Your task to perform on an android device: delete the emails in spam in the gmail app Image 0: 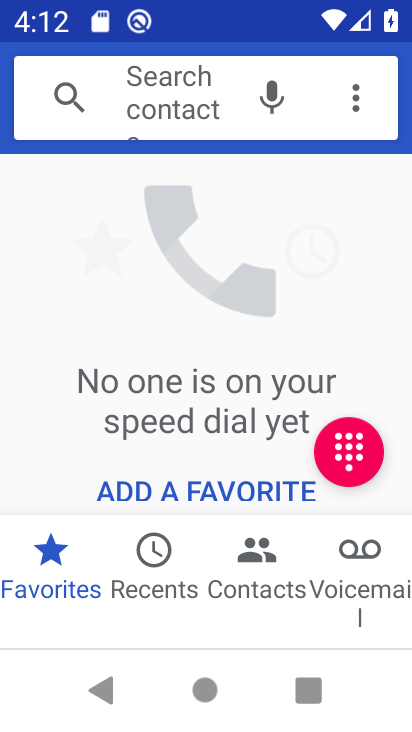
Step 0: press home button
Your task to perform on an android device: delete the emails in spam in the gmail app Image 1: 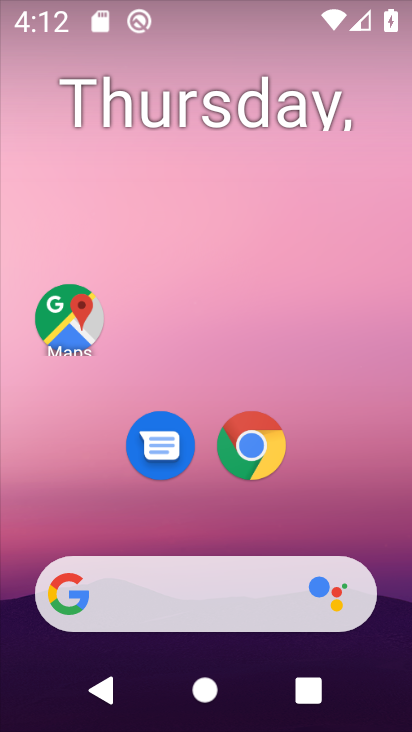
Step 1: drag from (317, 504) to (298, 134)
Your task to perform on an android device: delete the emails in spam in the gmail app Image 2: 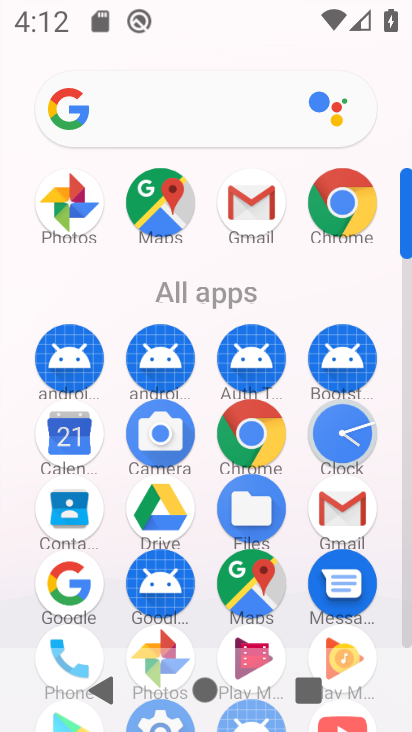
Step 2: click (349, 512)
Your task to perform on an android device: delete the emails in spam in the gmail app Image 3: 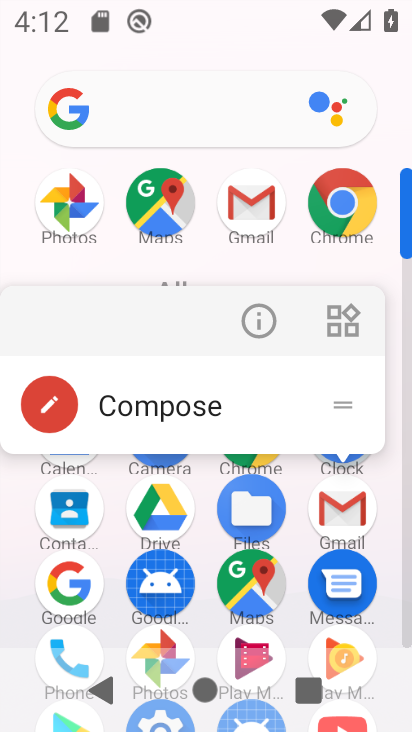
Step 3: click (344, 502)
Your task to perform on an android device: delete the emails in spam in the gmail app Image 4: 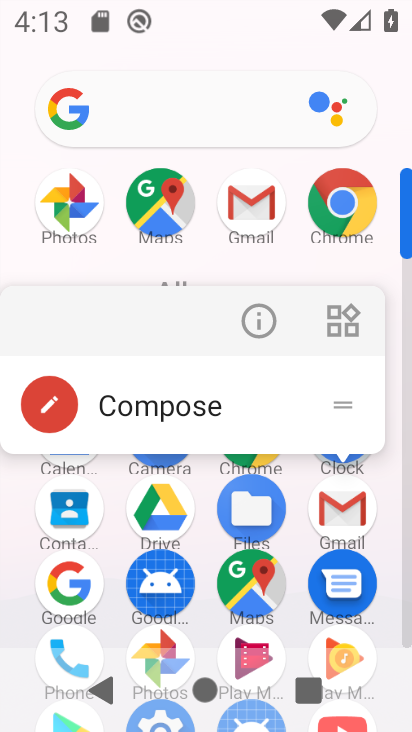
Step 4: click (337, 508)
Your task to perform on an android device: delete the emails in spam in the gmail app Image 5: 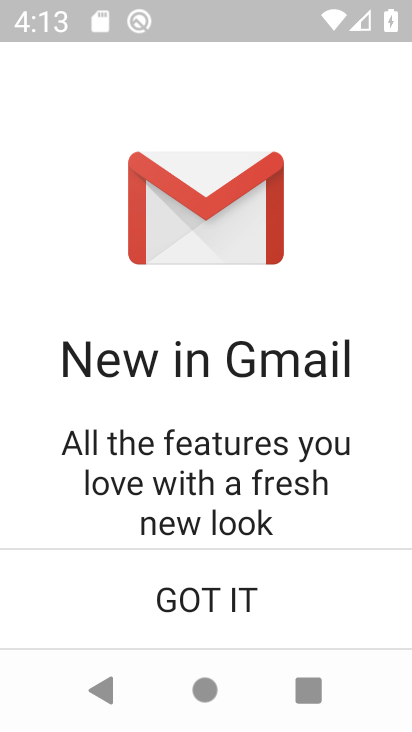
Step 5: click (227, 609)
Your task to perform on an android device: delete the emails in spam in the gmail app Image 6: 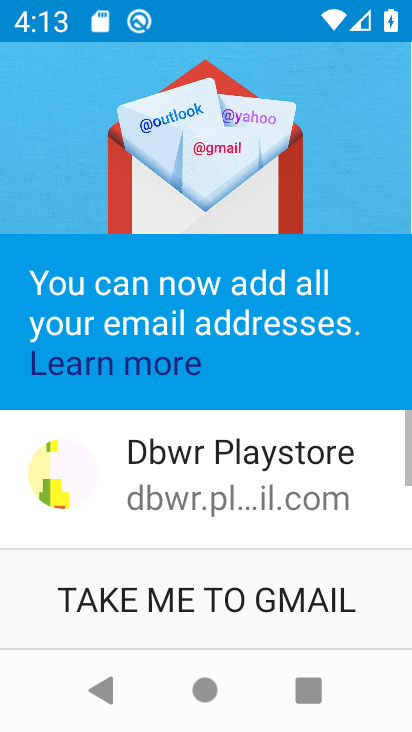
Step 6: click (227, 609)
Your task to perform on an android device: delete the emails in spam in the gmail app Image 7: 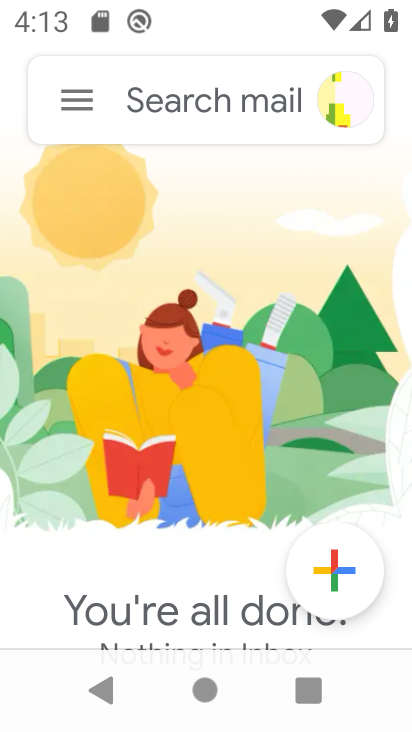
Step 7: click (87, 95)
Your task to perform on an android device: delete the emails in spam in the gmail app Image 8: 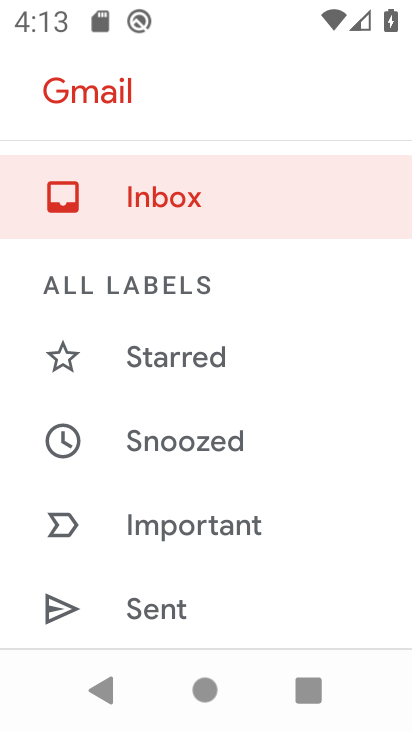
Step 8: click (166, 208)
Your task to perform on an android device: delete the emails in spam in the gmail app Image 9: 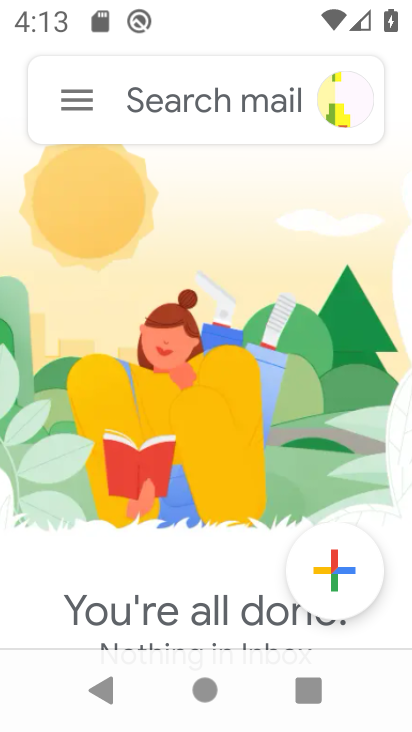
Step 9: task complete